Your task to perform on an android device: open sync settings in chrome Image 0: 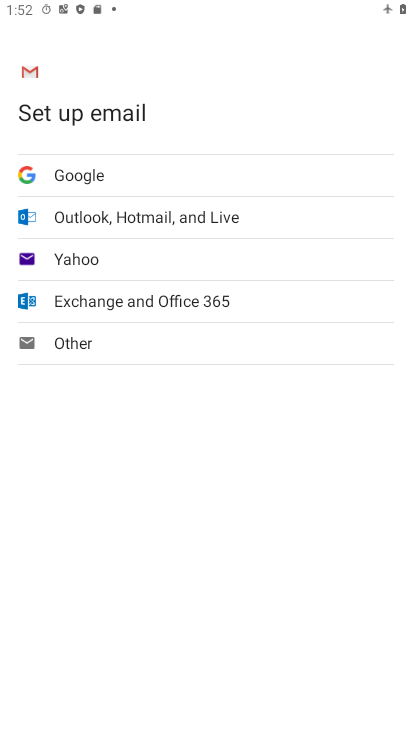
Step 0: press home button
Your task to perform on an android device: open sync settings in chrome Image 1: 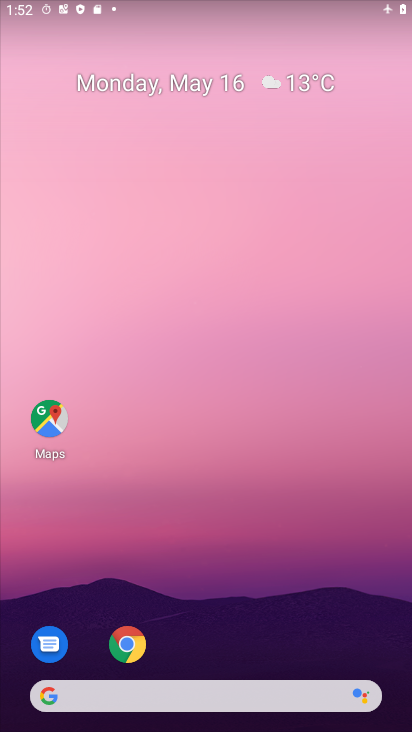
Step 1: drag from (203, 682) to (226, 213)
Your task to perform on an android device: open sync settings in chrome Image 2: 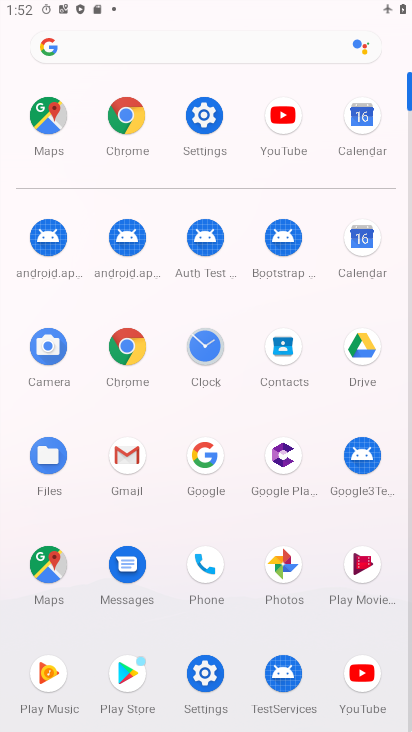
Step 2: click (122, 374)
Your task to perform on an android device: open sync settings in chrome Image 3: 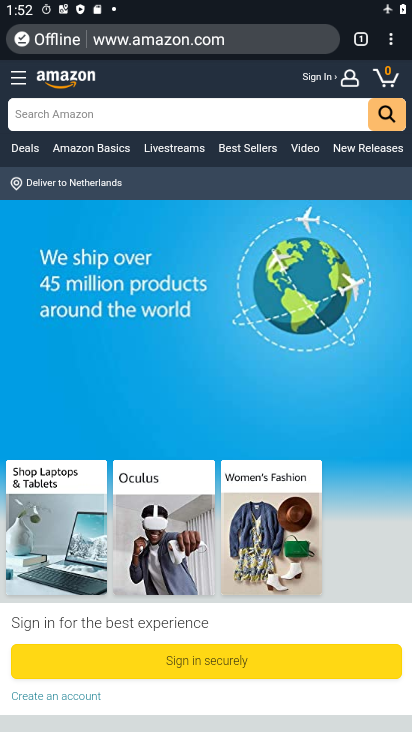
Step 3: click (393, 43)
Your task to perform on an android device: open sync settings in chrome Image 4: 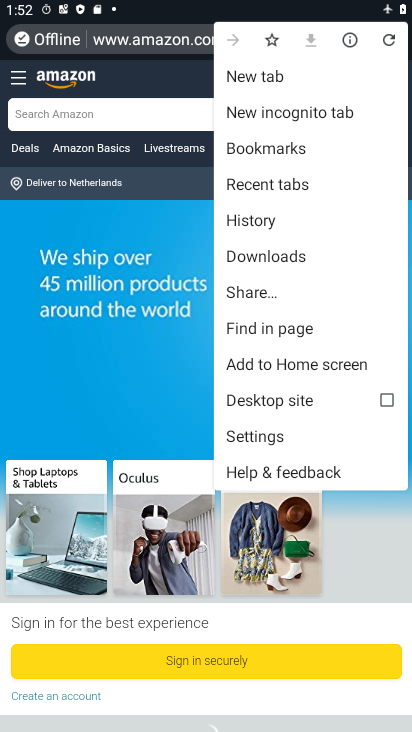
Step 4: drag from (303, 320) to (306, 241)
Your task to perform on an android device: open sync settings in chrome Image 5: 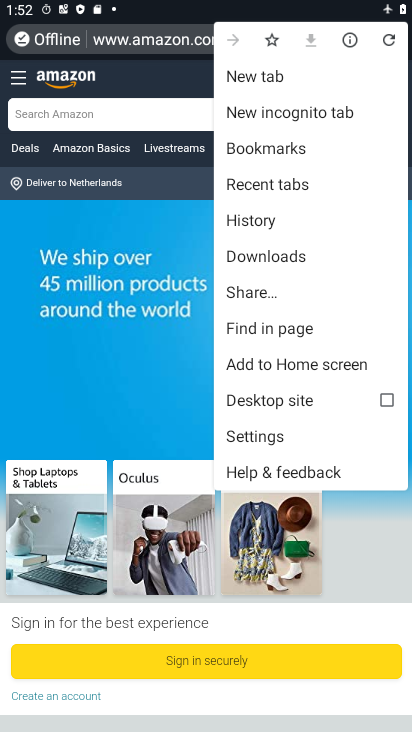
Step 5: click (302, 446)
Your task to perform on an android device: open sync settings in chrome Image 6: 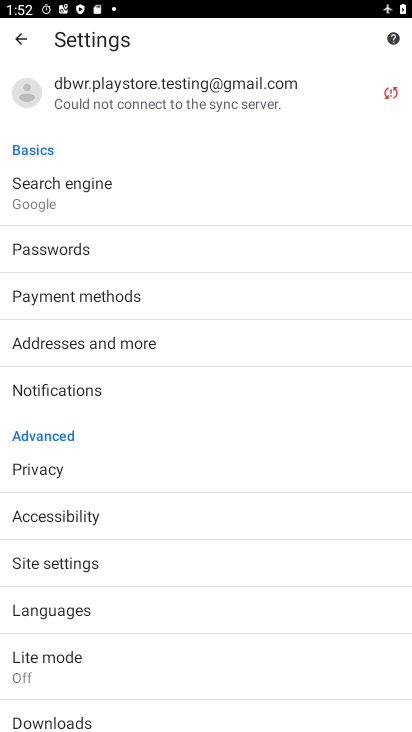
Step 6: click (167, 106)
Your task to perform on an android device: open sync settings in chrome Image 7: 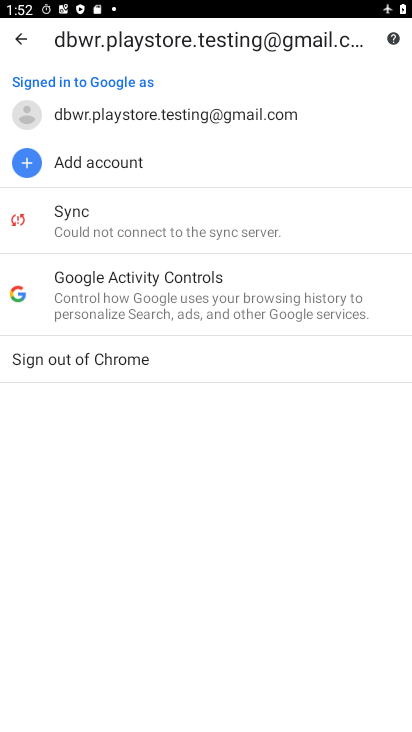
Step 7: click (168, 216)
Your task to perform on an android device: open sync settings in chrome Image 8: 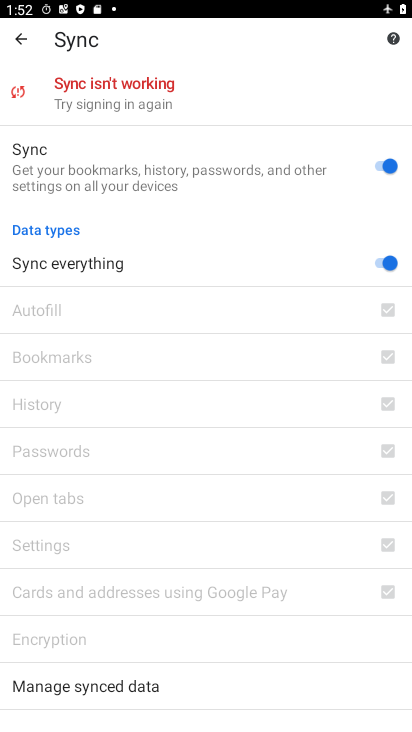
Step 8: task complete